Your task to perform on an android device: Set the phone to "Do not disturb". Image 0: 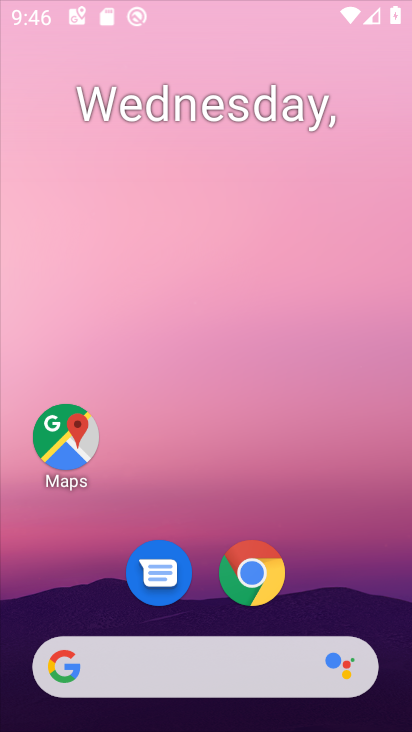
Step 0: drag from (387, 451) to (381, 271)
Your task to perform on an android device: Set the phone to "Do not disturb". Image 1: 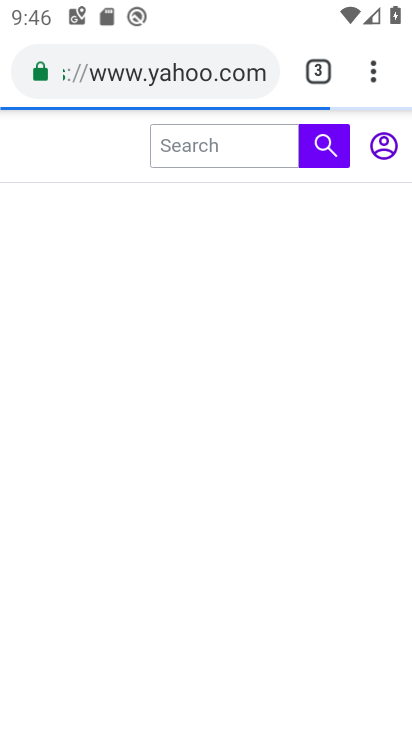
Step 1: press home button
Your task to perform on an android device: Set the phone to "Do not disturb". Image 2: 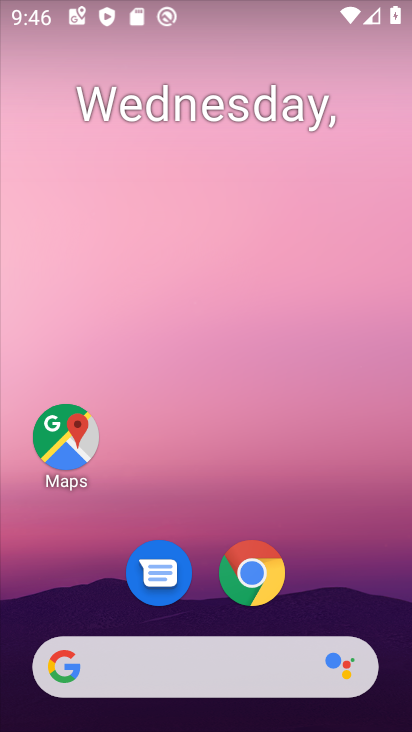
Step 2: drag from (374, 472) to (368, 286)
Your task to perform on an android device: Set the phone to "Do not disturb". Image 3: 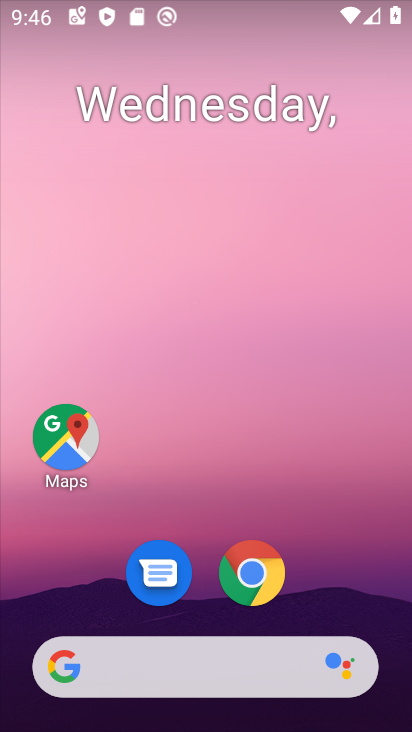
Step 3: drag from (354, 454) to (346, 285)
Your task to perform on an android device: Set the phone to "Do not disturb". Image 4: 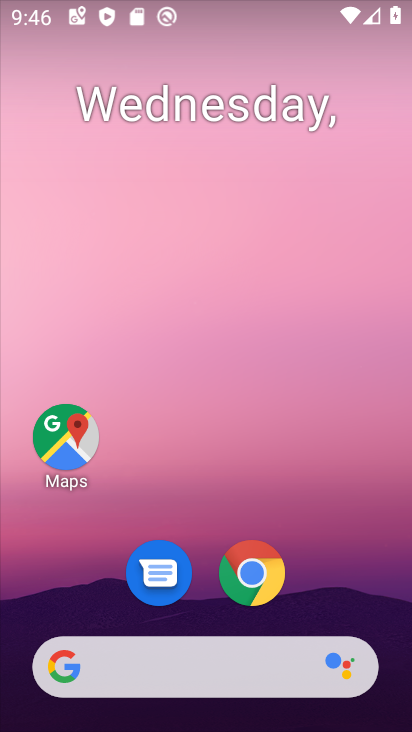
Step 4: drag from (365, 267) to (339, 132)
Your task to perform on an android device: Set the phone to "Do not disturb". Image 5: 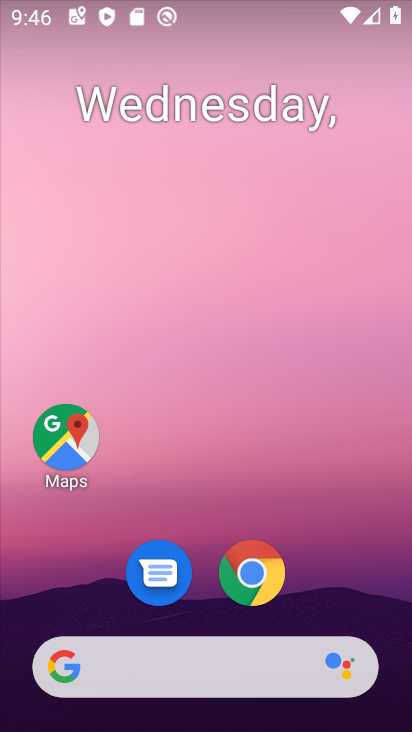
Step 5: click (348, 287)
Your task to perform on an android device: Set the phone to "Do not disturb". Image 6: 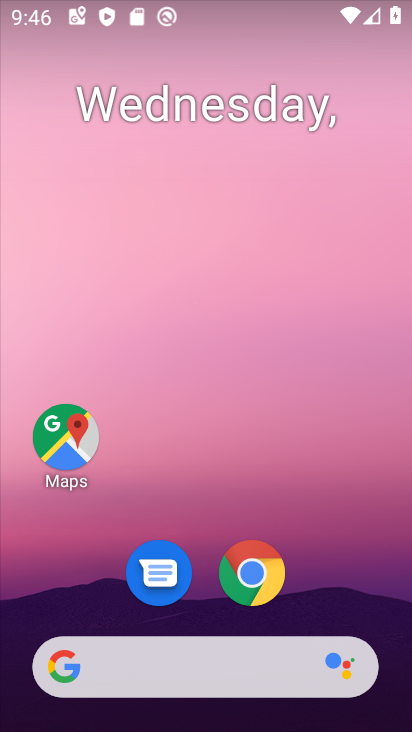
Step 6: drag from (361, 229) to (358, 171)
Your task to perform on an android device: Set the phone to "Do not disturb". Image 7: 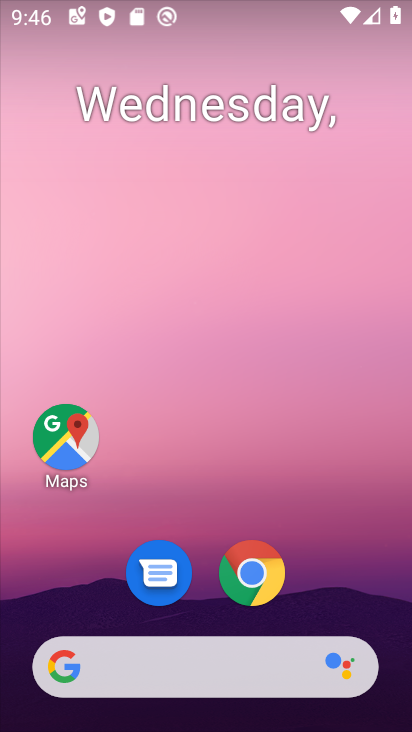
Step 7: drag from (380, 570) to (368, 175)
Your task to perform on an android device: Set the phone to "Do not disturb". Image 8: 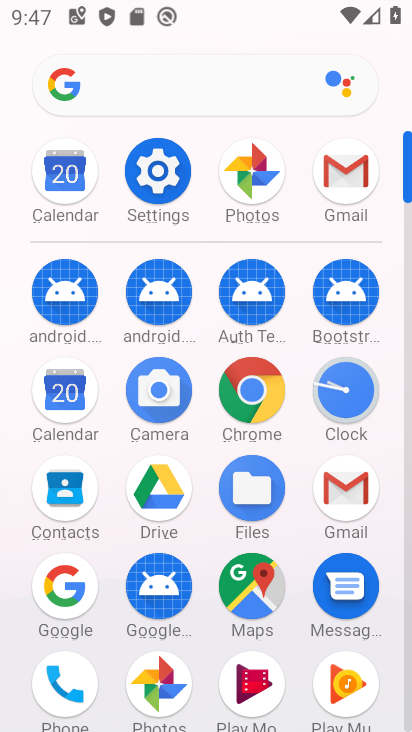
Step 8: click (156, 183)
Your task to perform on an android device: Set the phone to "Do not disturb". Image 9: 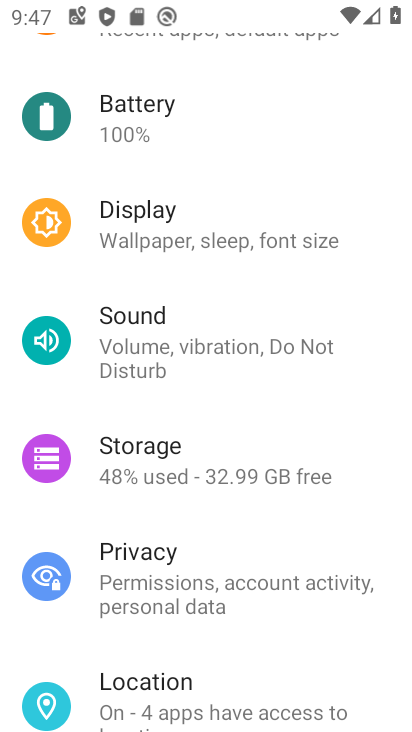
Step 9: click (103, 350)
Your task to perform on an android device: Set the phone to "Do not disturb". Image 10: 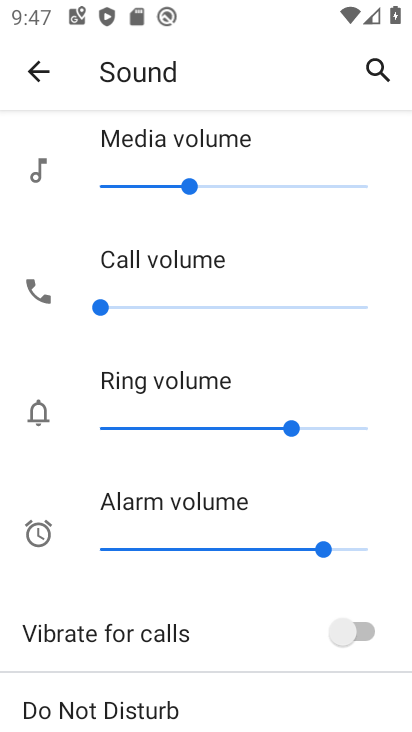
Step 10: drag from (213, 683) to (204, 337)
Your task to perform on an android device: Set the phone to "Do not disturb". Image 11: 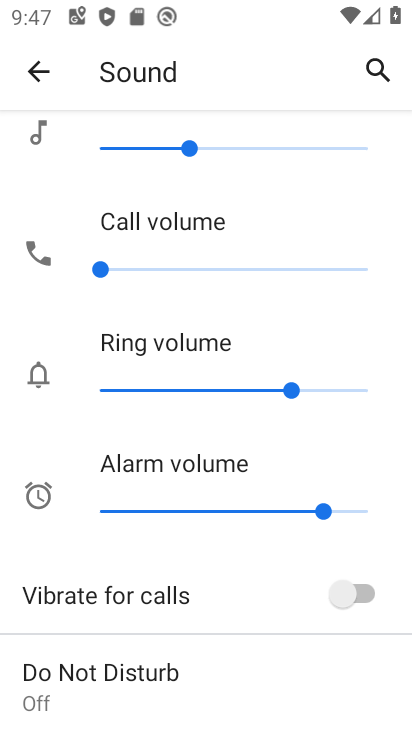
Step 11: click (97, 686)
Your task to perform on an android device: Set the phone to "Do not disturb". Image 12: 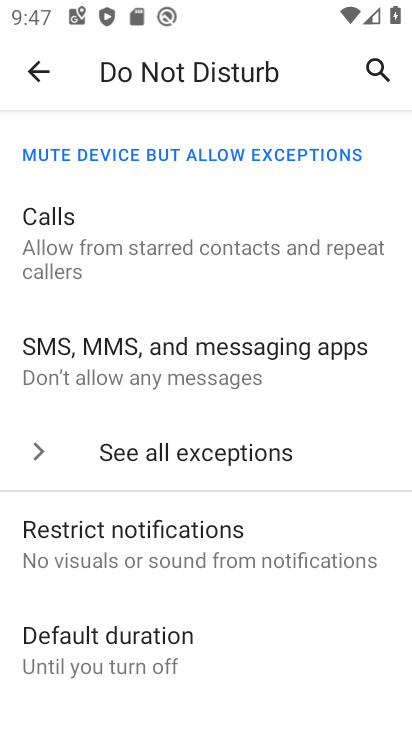
Step 12: click (282, 300)
Your task to perform on an android device: Set the phone to "Do not disturb". Image 13: 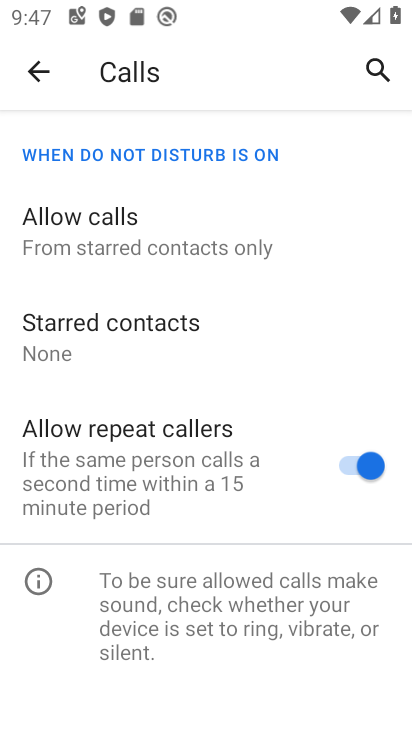
Step 13: click (38, 74)
Your task to perform on an android device: Set the phone to "Do not disturb". Image 14: 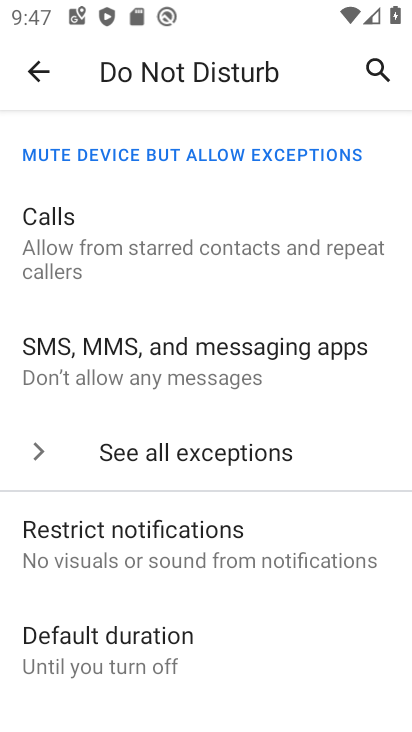
Step 14: drag from (258, 350) to (257, 310)
Your task to perform on an android device: Set the phone to "Do not disturb". Image 15: 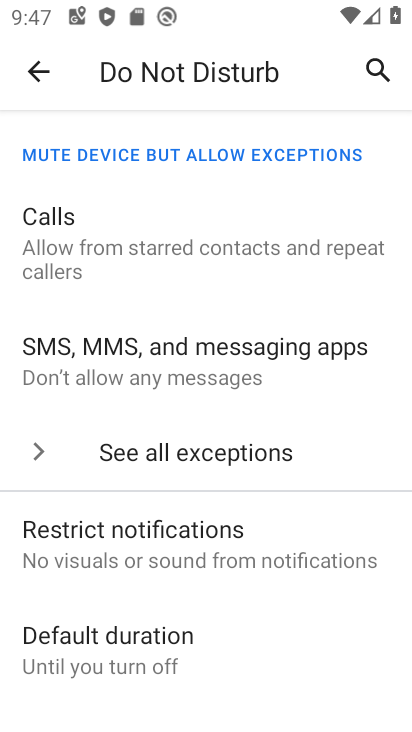
Step 15: drag from (251, 179) to (264, 642)
Your task to perform on an android device: Set the phone to "Do not disturb". Image 16: 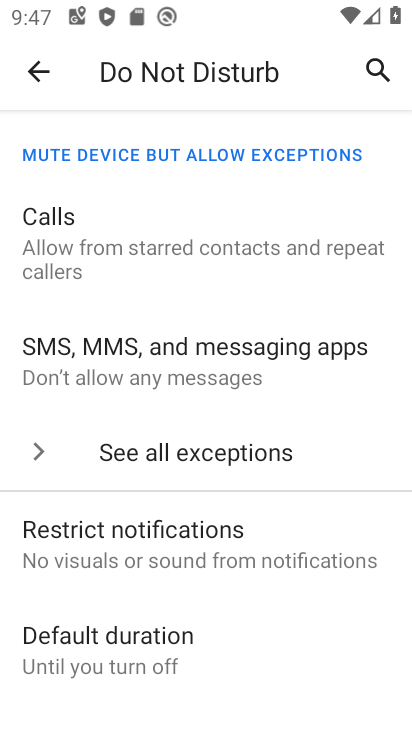
Step 16: drag from (264, 642) to (242, 272)
Your task to perform on an android device: Set the phone to "Do not disturb". Image 17: 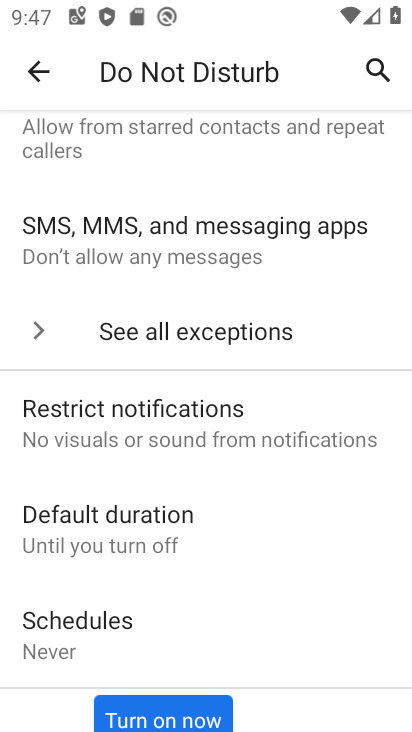
Step 17: click (161, 720)
Your task to perform on an android device: Set the phone to "Do not disturb". Image 18: 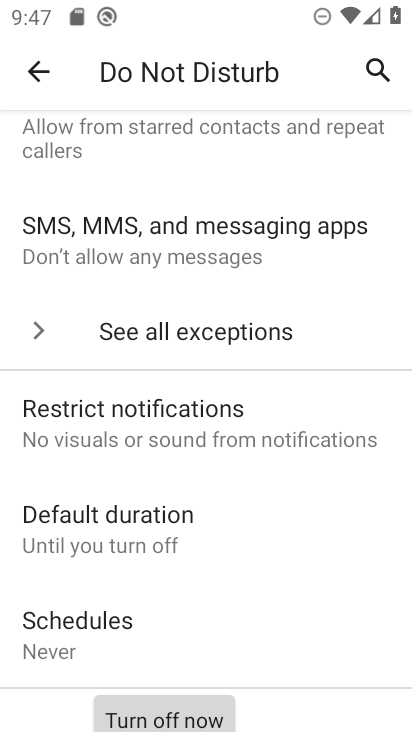
Step 18: task complete